Your task to perform on an android device: turn off picture-in-picture Image 0: 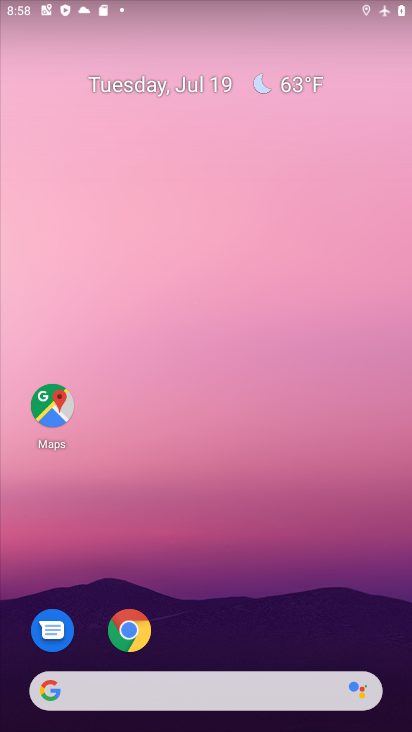
Step 0: click (128, 630)
Your task to perform on an android device: turn off picture-in-picture Image 1: 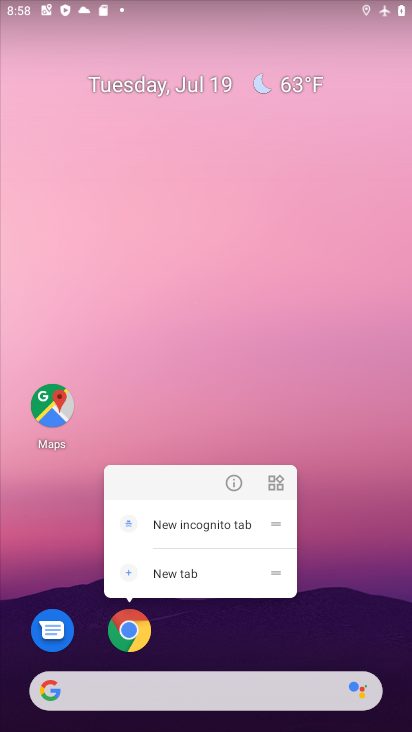
Step 1: click (235, 483)
Your task to perform on an android device: turn off picture-in-picture Image 2: 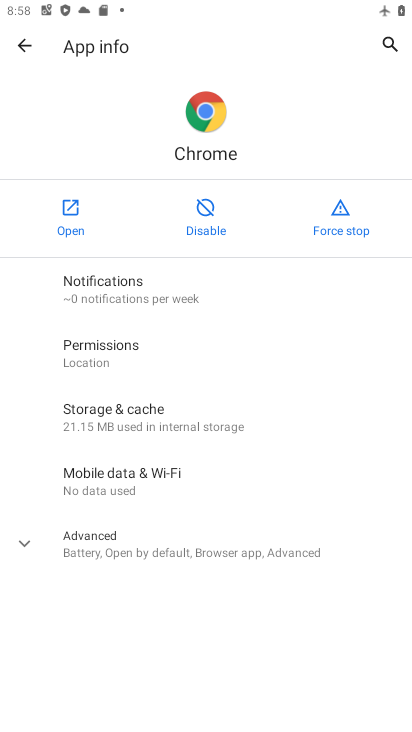
Step 2: click (119, 558)
Your task to perform on an android device: turn off picture-in-picture Image 3: 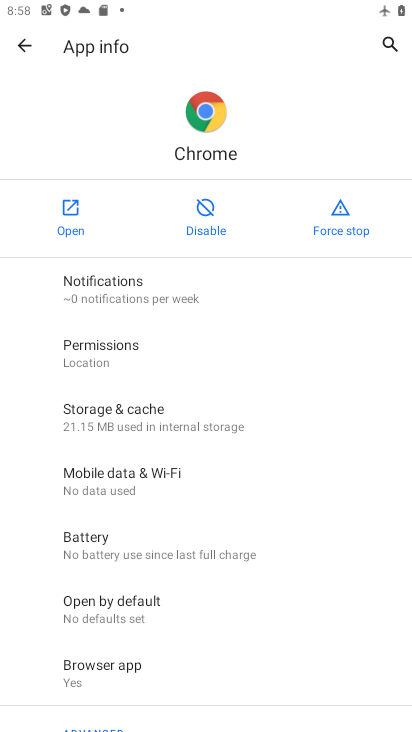
Step 3: drag from (121, 573) to (152, 435)
Your task to perform on an android device: turn off picture-in-picture Image 4: 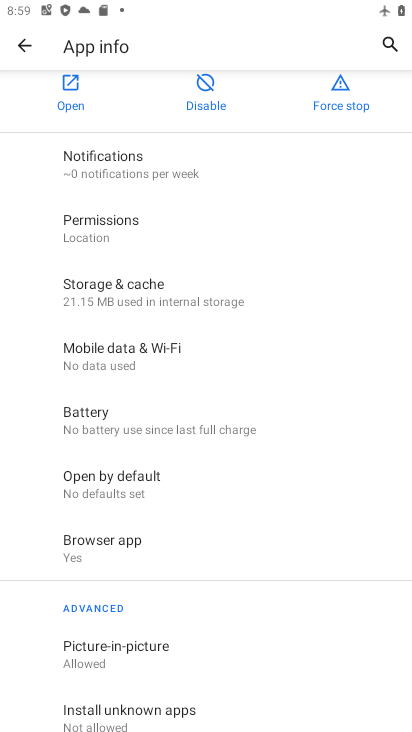
Step 4: click (150, 647)
Your task to perform on an android device: turn off picture-in-picture Image 5: 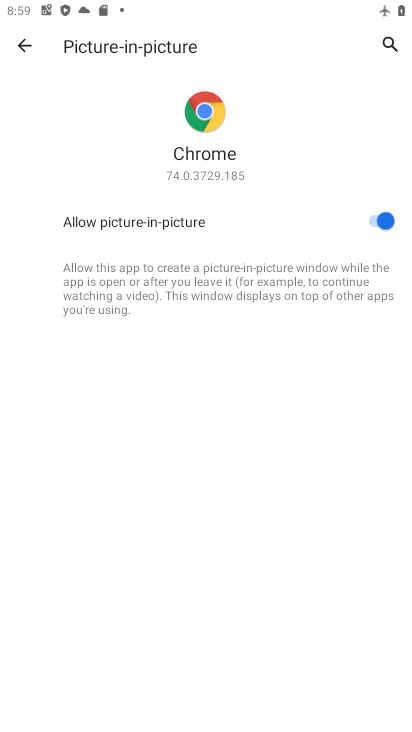
Step 5: click (375, 225)
Your task to perform on an android device: turn off picture-in-picture Image 6: 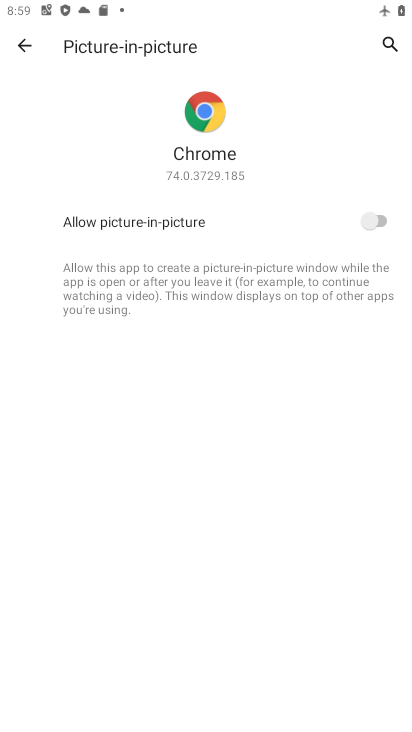
Step 6: task complete